Your task to perform on an android device: Open the map Image 0: 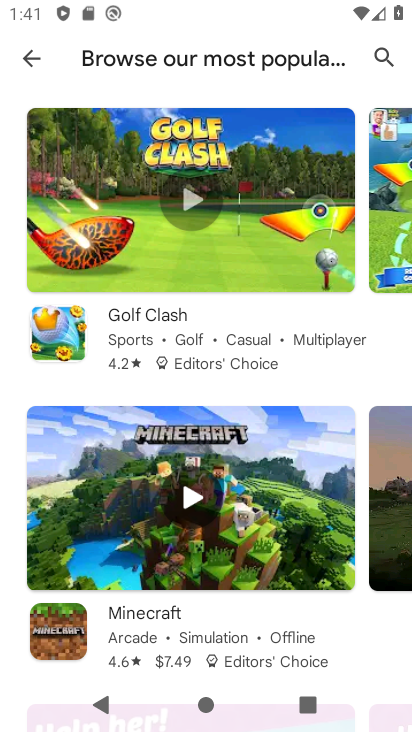
Step 0: press back button
Your task to perform on an android device: Open the map Image 1: 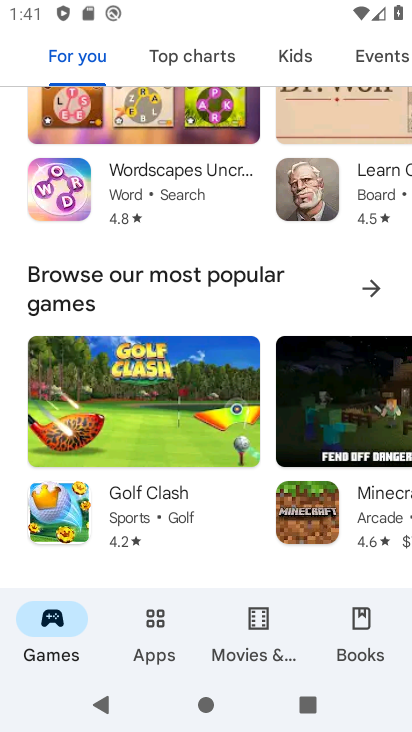
Step 1: press back button
Your task to perform on an android device: Open the map Image 2: 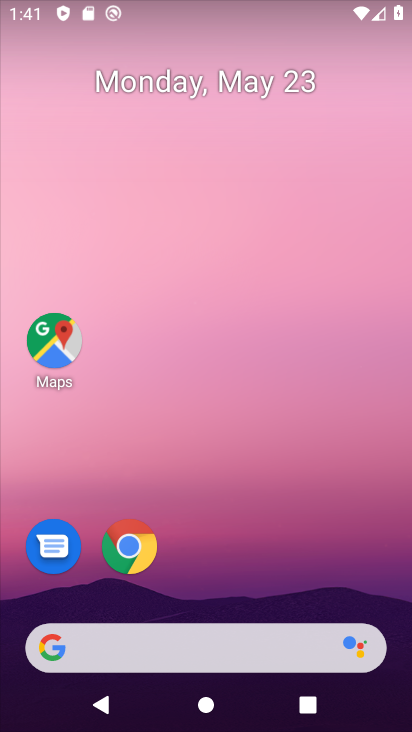
Step 2: click (54, 329)
Your task to perform on an android device: Open the map Image 3: 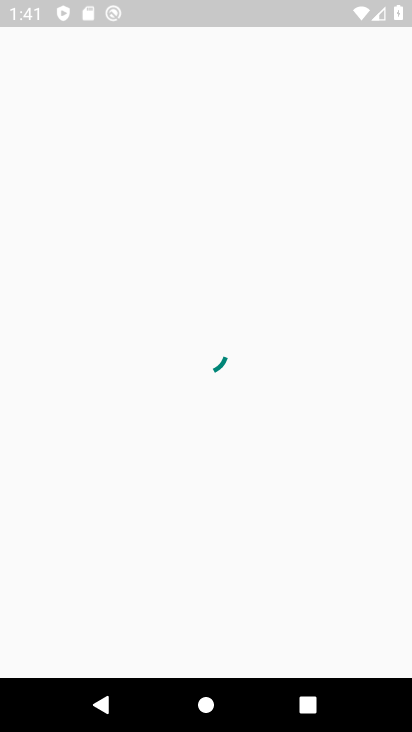
Step 3: task complete